Your task to perform on an android device: turn on notifications settings in the gmail app Image 0: 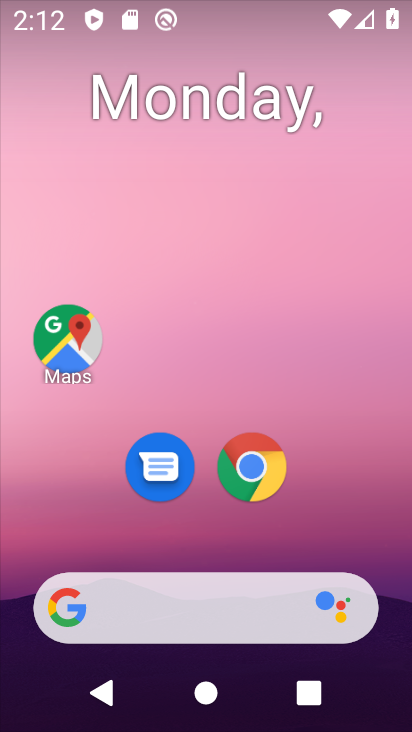
Step 0: drag from (373, 552) to (319, 68)
Your task to perform on an android device: turn on notifications settings in the gmail app Image 1: 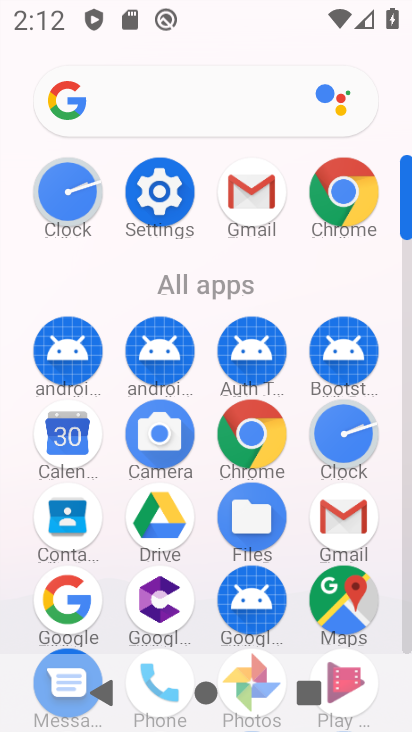
Step 1: click (250, 195)
Your task to perform on an android device: turn on notifications settings in the gmail app Image 2: 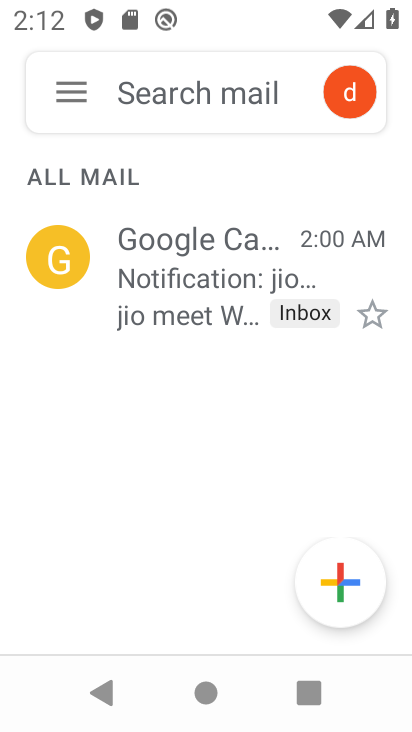
Step 2: click (69, 99)
Your task to perform on an android device: turn on notifications settings in the gmail app Image 3: 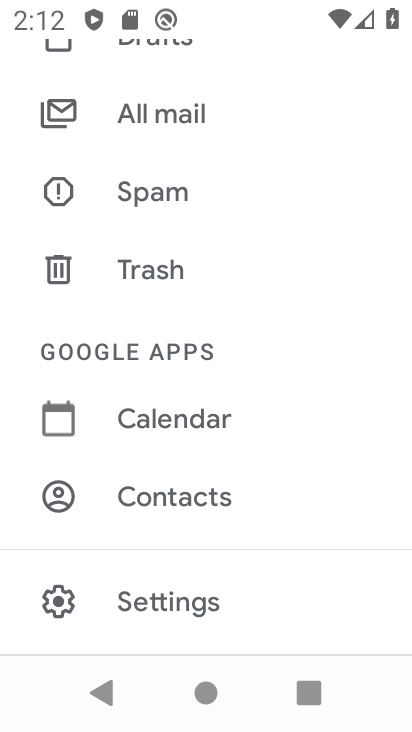
Step 3: click (169, 595)
Your task to perform on an android device: turn on notifications settings in the gmail app Image 4: 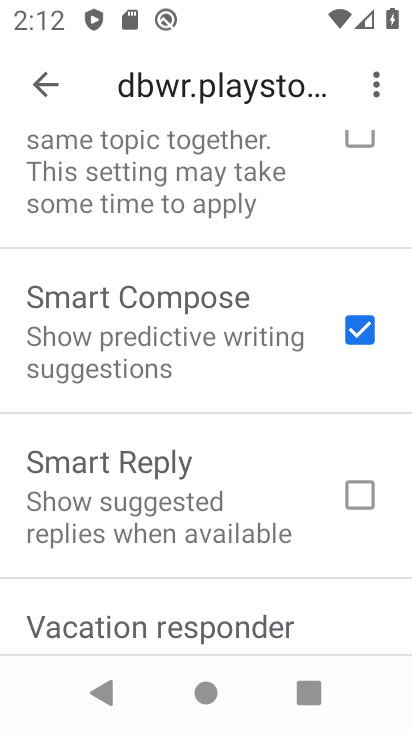
Step 4: drag from (242, 197) to (208, 691)
Your task to perform on an android device: turn on notifications settings in the gmail app Image 5: 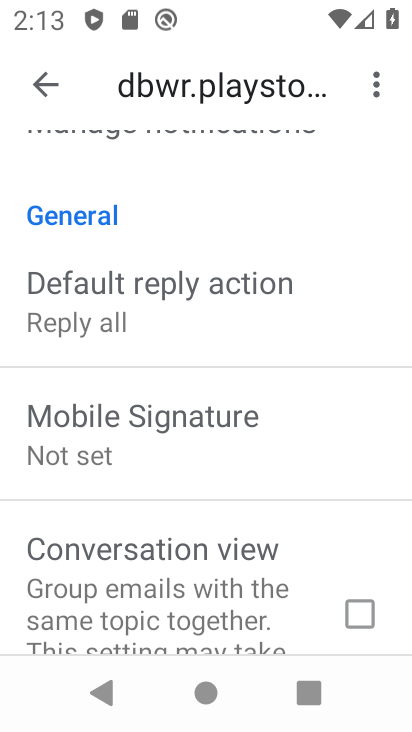
Step 5: click (208, 138)
Your task to perform on an android device: turn on notifications settings in the gmail app Image 6: 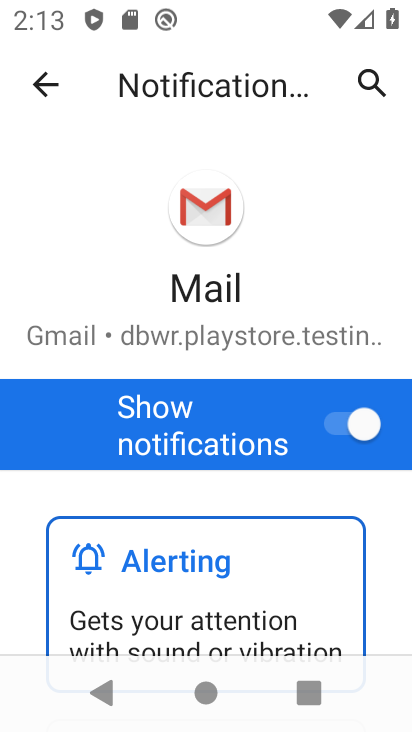
Step 6: drag from (377, 571) to (320, 179)
Your task to perform on an android device: turn on notifications settings in the gmail app Image 7: 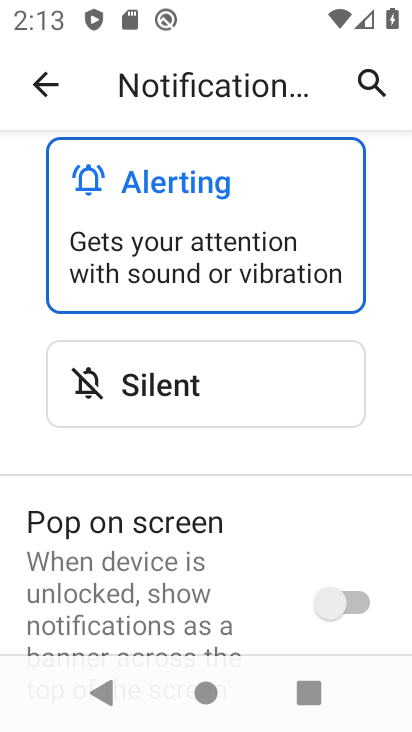
Step 7: click (334, 382)
Your task to perform on an android device: turn on notifications settings in the gmail app Image 8: 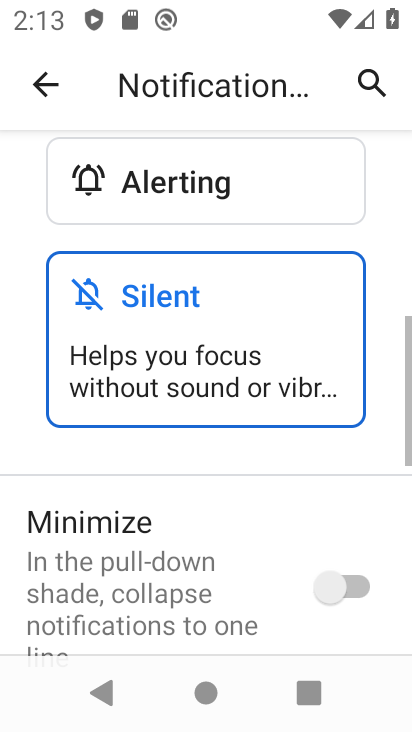
Step 8: click (349, 585)
Your task to perform on an android device: turn on notifications settings in the gmail app Image 9: 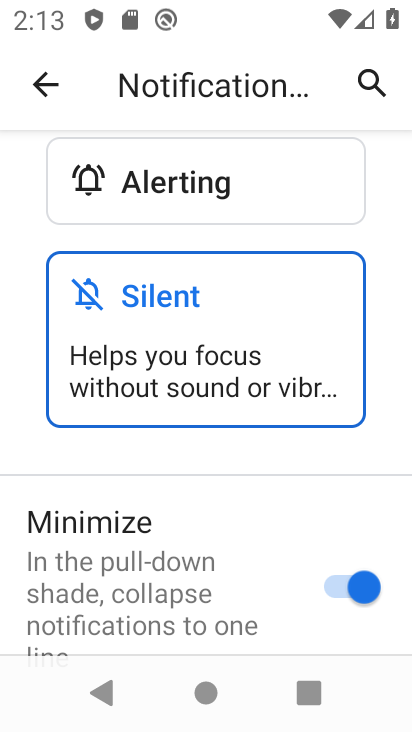
Step 9: task complete